Your task to perform on an android device: turn on the 12-hour format for clock Image 0: 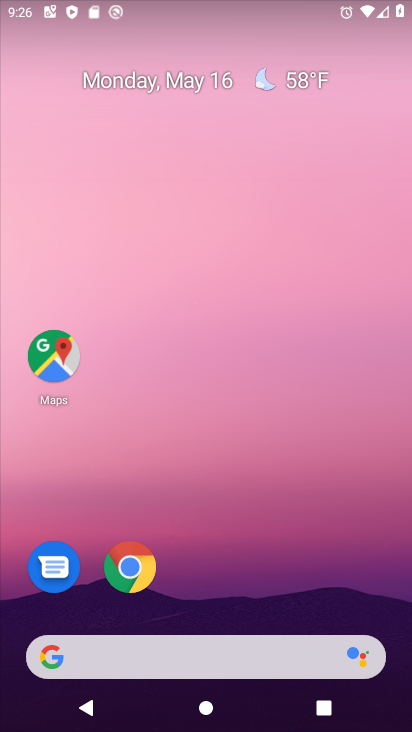
Step 0: drag from (231, 568) to (239, 242)
Your task to perform on an android device: turn on the 12-hour format for clock Image 1: 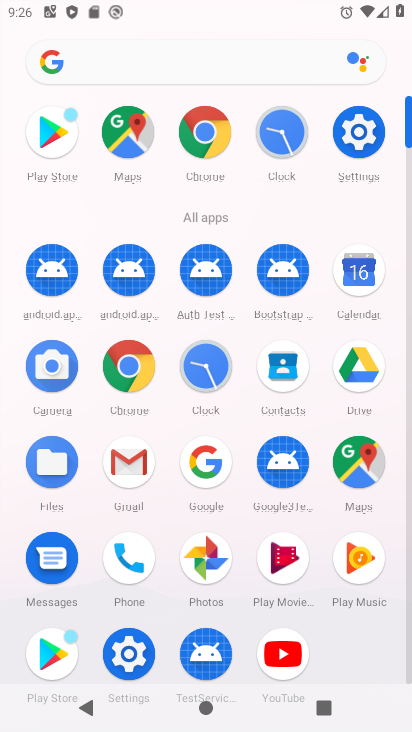
Step 1: click (205, 349)
Your task to perform on an android device: turn on the 12-hour format for clock Image 2: 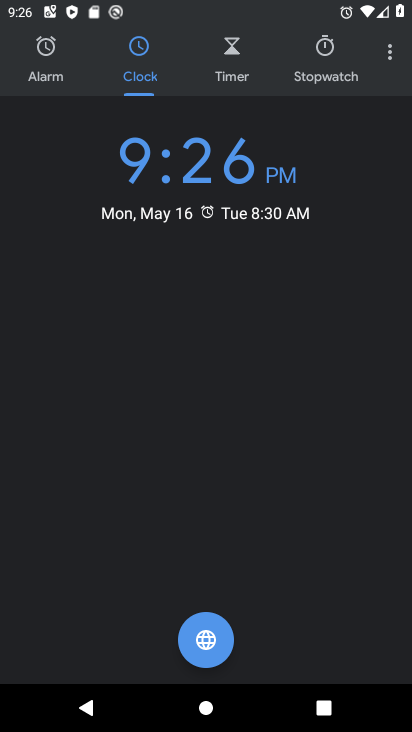
Step 2: click (386, 55)
Your task to perform on an android device: turn on the 12-hour format for clock Image 3: 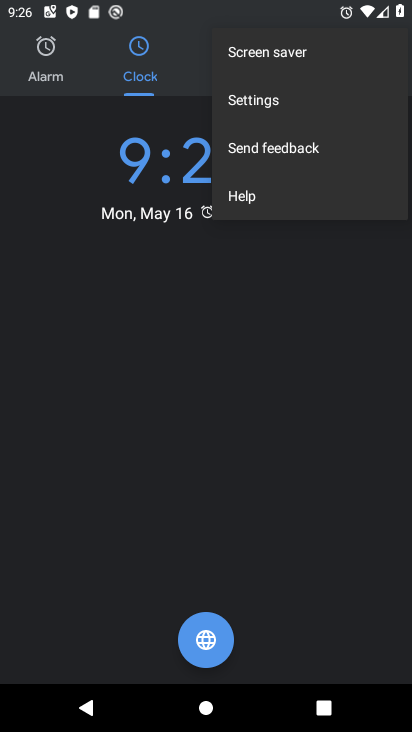
Step 3: click (280, 98)
Your task to perform on an android device: turn on the 12-hour format for clock Image 4: 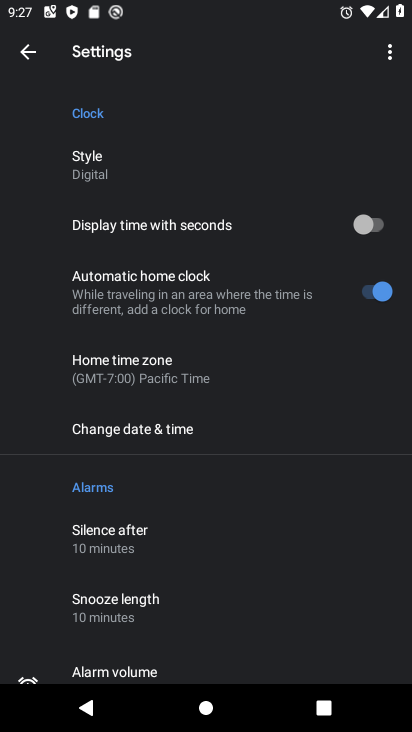
Step 4: click (193, 424)
Your task to perform on an android device: turn on the 12-hour format for clock Image 5: 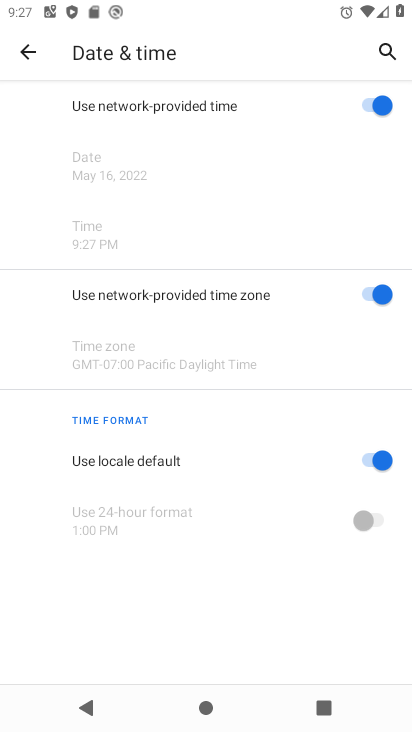
Step 5: click (366, 460)
Your task to perform on an android device: turn on the 12-hour format for clock Image 6: 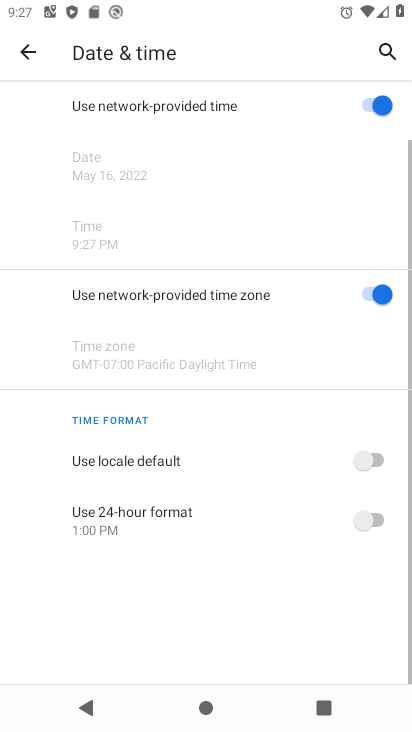
Step 6: click (367, 513)
Your task to perform on an android device: turn on the 12-hour format for clock Image 7: 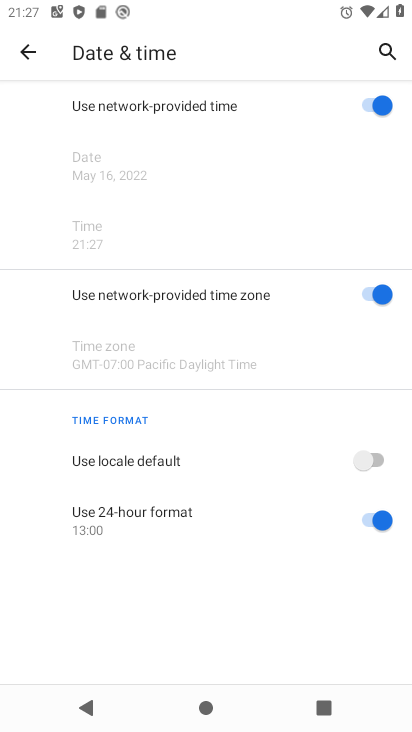
Step 7: task complete